Your task to perform on an android device: add a contact in the contacts app Image 0: 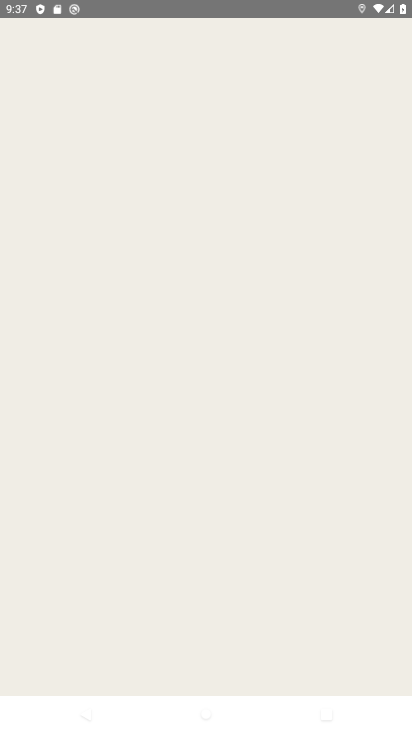
Step 0: press home button
Your task to perform on an android device: add a contact in the contacts app Image 1: 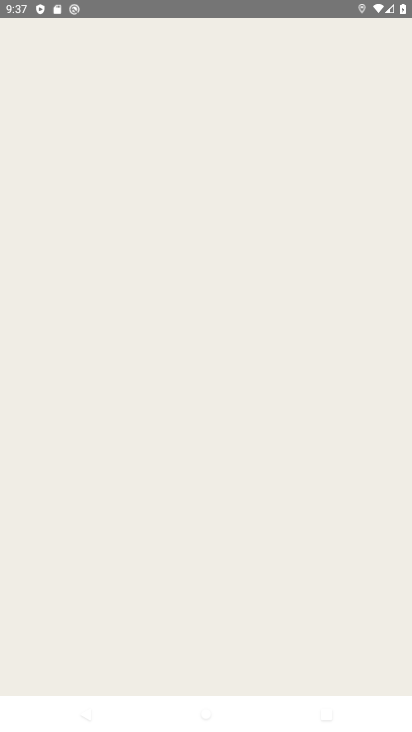
Step 1: click (295, 166)
Your task to perform on an android device: add a contact in the contacts app Image 2: 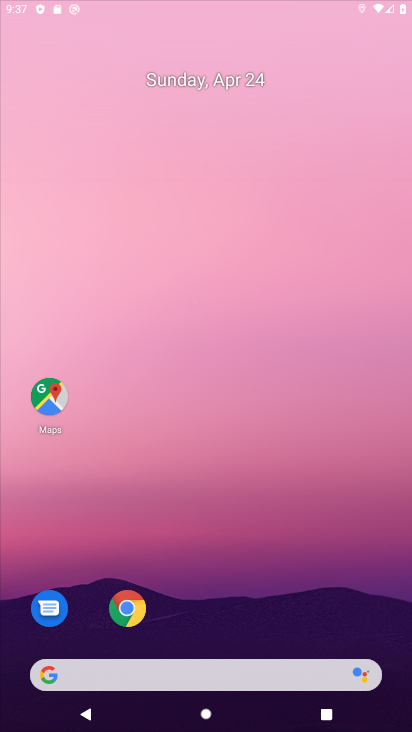
Step 2: press home button
Your task to perform on an android device: add a contact in the contacts app Image 3: 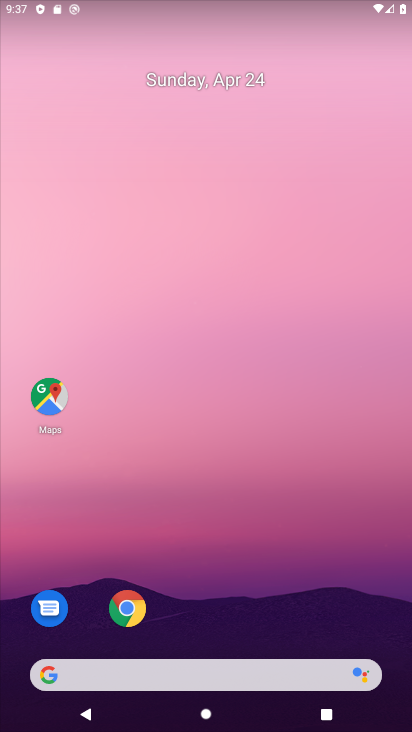
Step 3: drag from (279, 684) to (322, 72)
Your task to perform on an android device: add a contact in the contacts app Image 4: 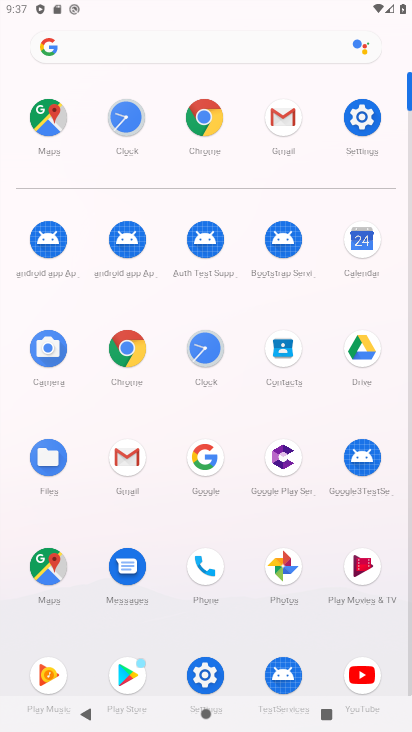
Step 4: click (204, 558)
Your task to perform on an android device: add a contact in the contacts app Image 5: 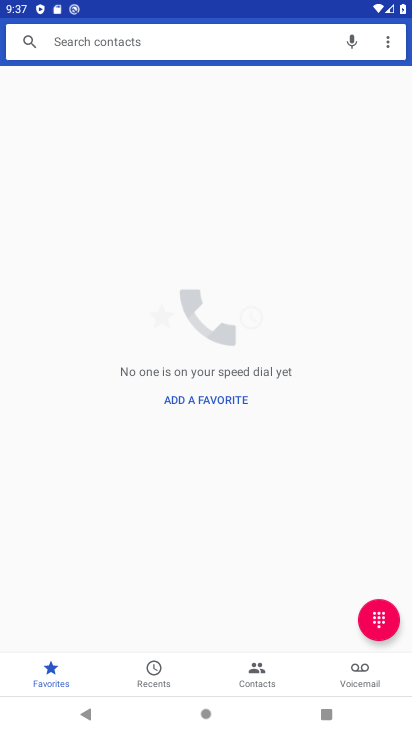
Step 5: click (247, 685)
Your task to perform on an android device: add a contact in the contacts app Image 6: 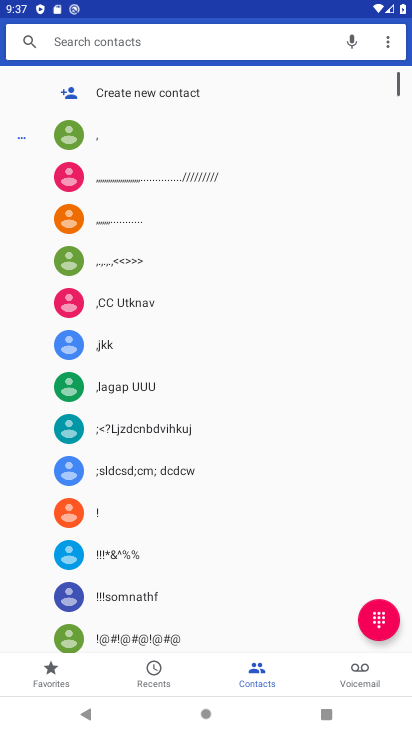
Step 6: click (157, 100)
Your task to perform on an android device: add a contact in the contacts app Image 7: 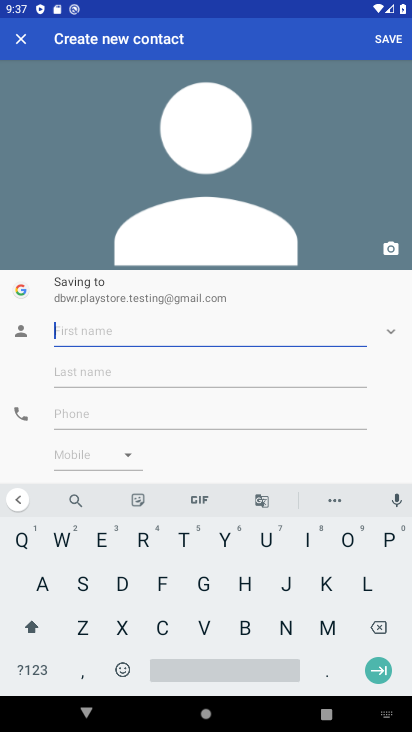
Step 7: click (184, 538)
Your task to perform on an android device: add a contact in the contacts app Image 8: 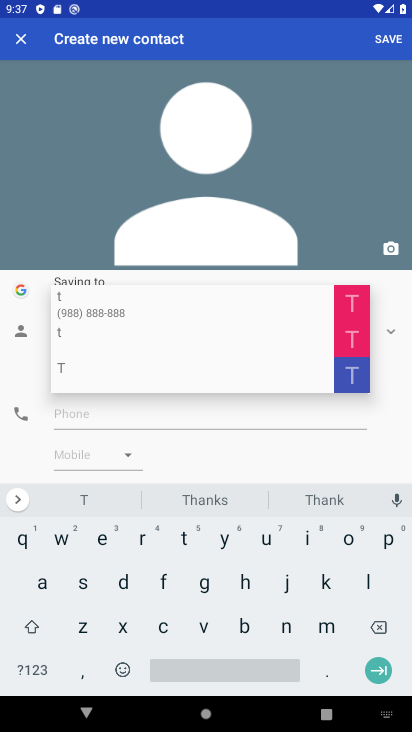
Step 8: drag from (335, 626) to (369, 579)
Your task to perform on an android device: add a contact in the contacts app Image 9: 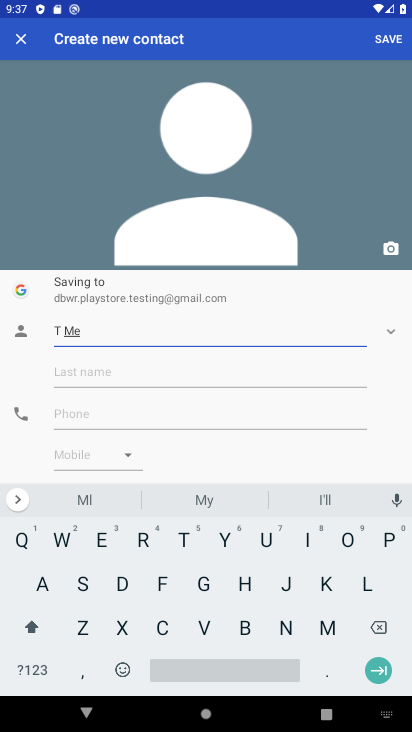
Step 9: click (121, 413)
Your task to perform on an android device: add a contact in the contacts app Image 10: 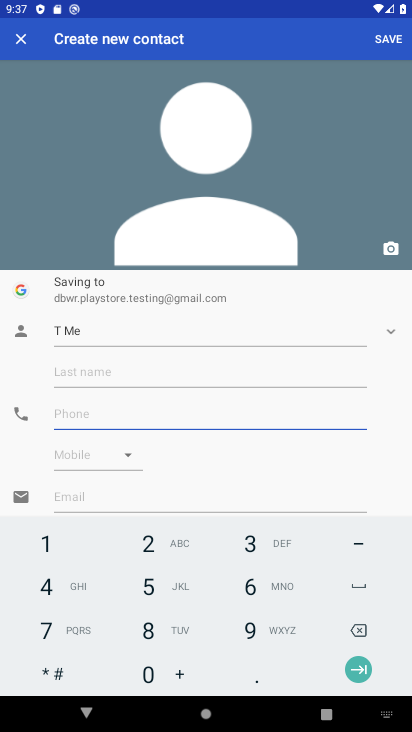
Step 10: click (255, 632)
Your task to perform on an android device: add a contact in the contacts app Image 11: 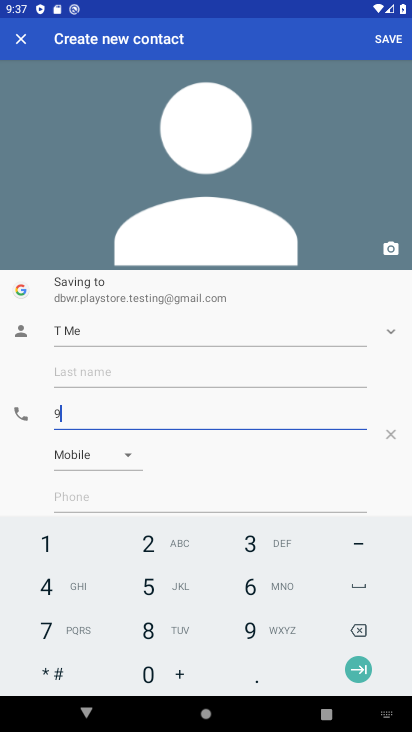
Step 11: click (252, 579)
Your task to perform on an android device: add a contact in the contacts app Image 12: 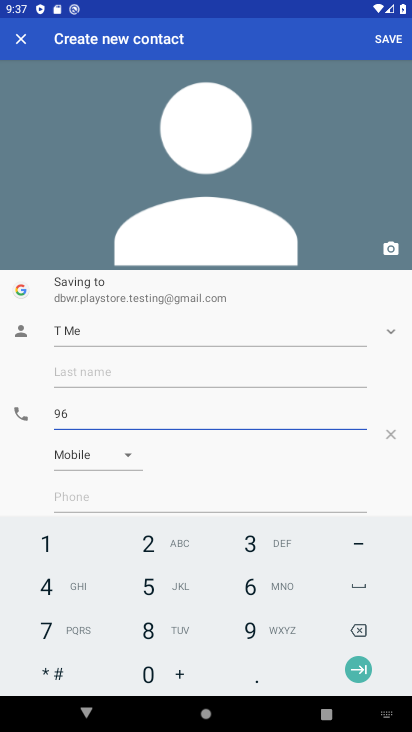
Step 12: click (154, 582)
Your task to perform on an android device: add a contact in the contacts app Image 13: 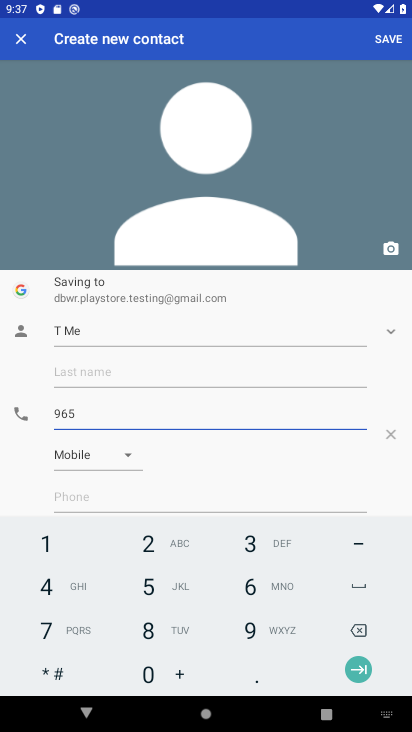
Step 13: click (33, 590)
Your task to perform on an android device: add a contact in the contacts app Image 14: 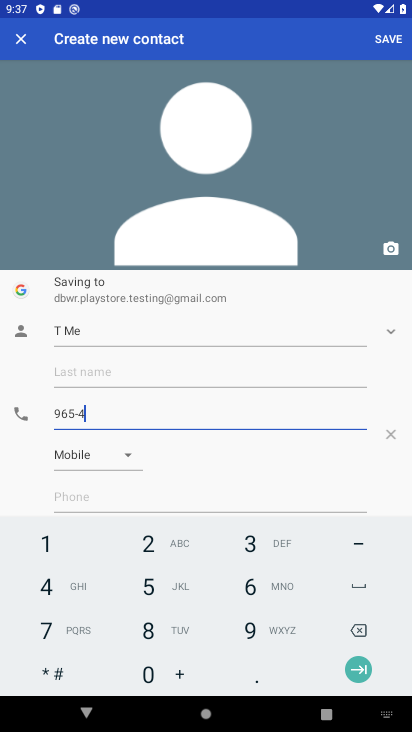
Step 14: click (150, 631)
Your task to perform on an android device: add a contact in the contacts app Image 15: 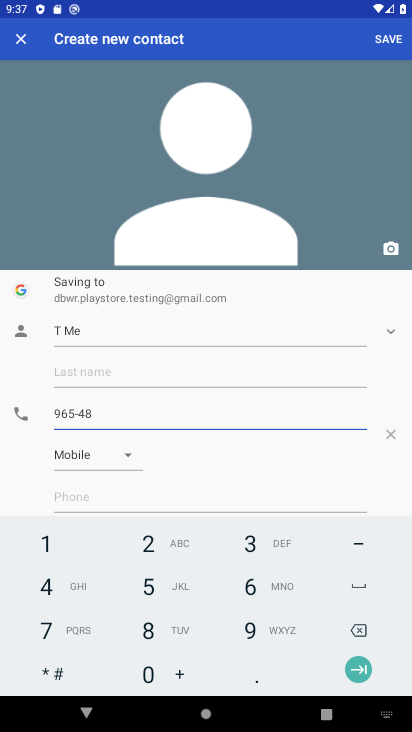
Step 15: click (154, 590)
Your task to perform on an android device: add a contact in the contacts app Image 16: 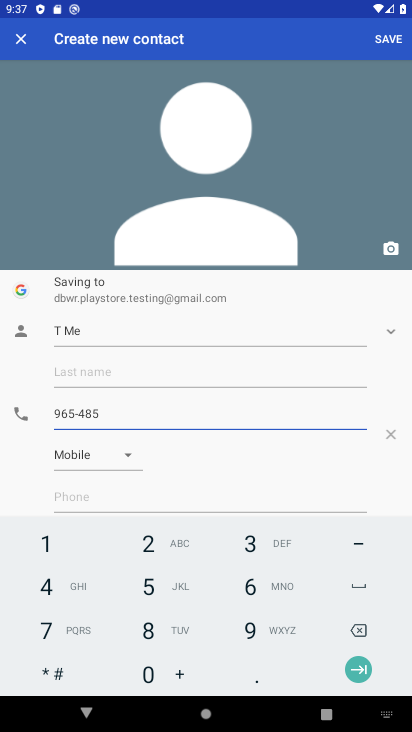
Step 16: click (256, 548)
Your task to perform on an android device: add a contact in the contacts app Image 17: 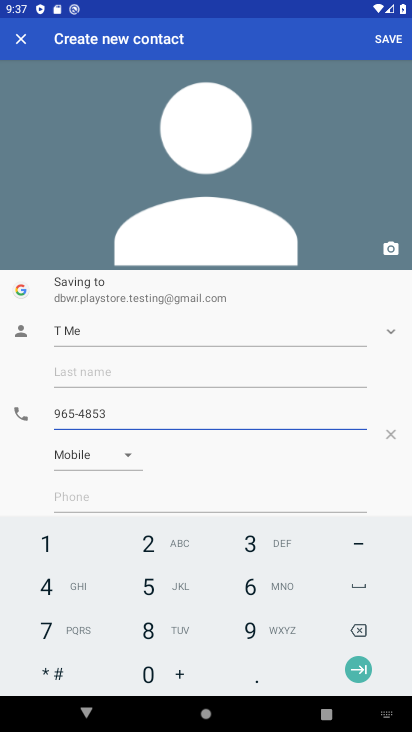
Step 17: click (253, 582)
Your task to perform on an android device: add a contact in the contacts app Image 18: 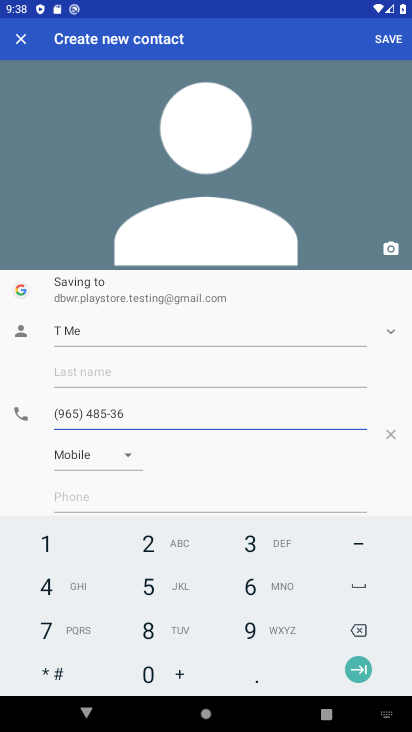
Step 18: click (255, 632)
Your task to perform on an android device: add a contact in the contacts app Image 19: 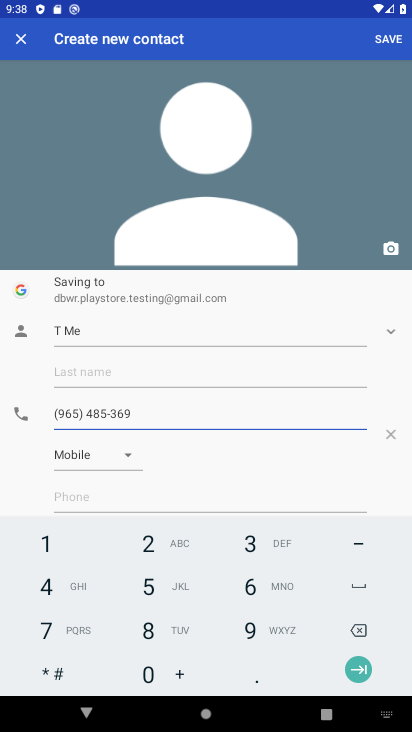
Step 19: click (393, 48)
Your task to perform on an android device: add a contact in the contacts app Image 20: 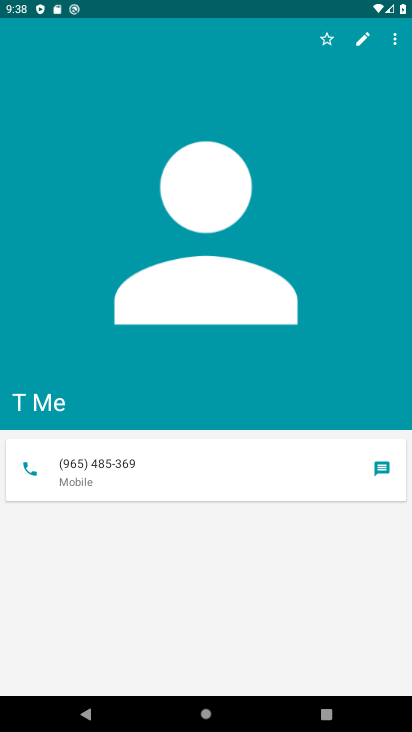
Step 20: task complete